Your task to perform on an android device: make emails show in primary in the gmail app Image 0: 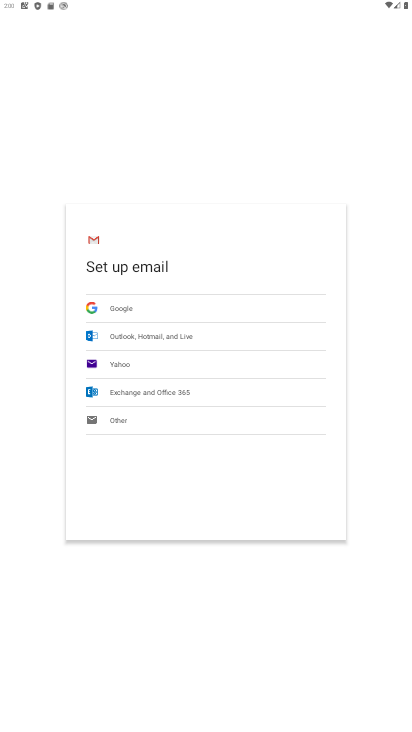
Step 0: press home button
Your task to perform on an android device: make emails show in primary in the gmail app Image 1: 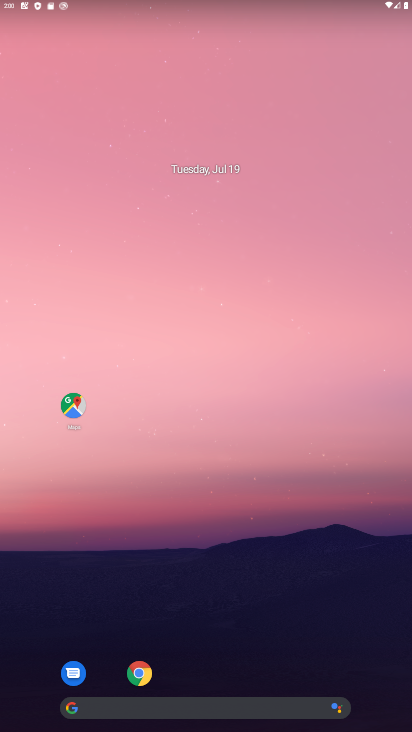
Step 1: drag from (218, 669) to (187, 76)
Your task to perform on an android device: make emails show in primary in the gmail app Image 2: 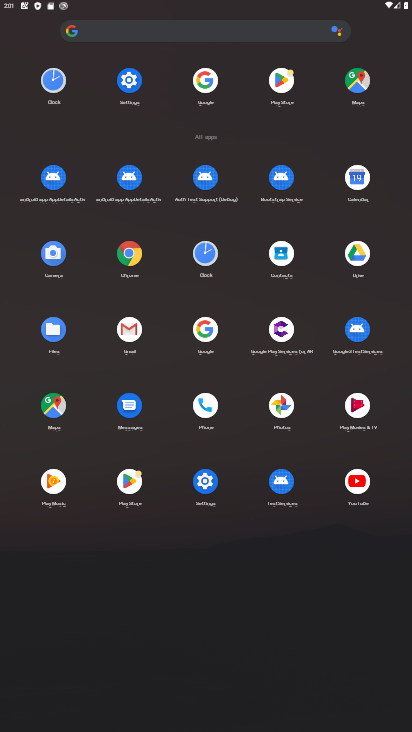
Step 2: click (128, 324)
Your task to perform on an android device: make emails show in primary in the gmail app Image 3: 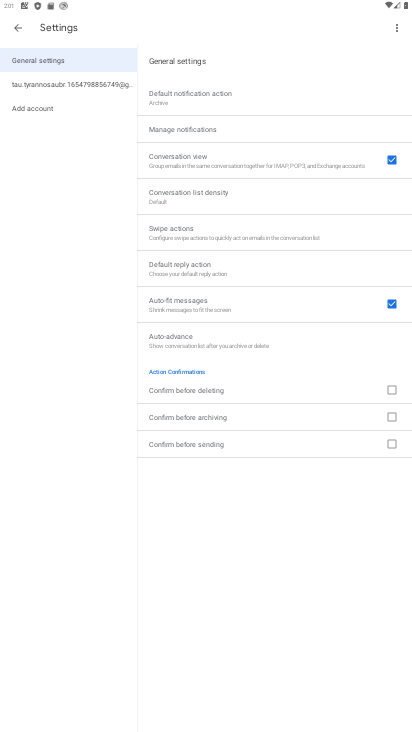
Step 3: click (78, 82)
Your task to perform on an android device: make emails show in primary in the gmail app Image 4: 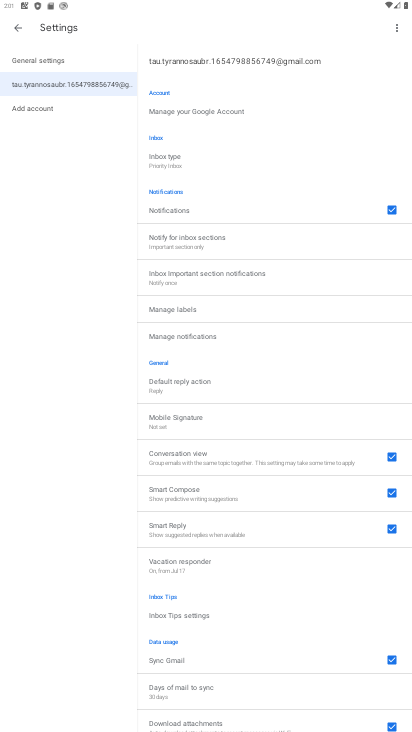
Step 4: click (166, 164)
Your task to perform on an android device: make emails show in primary in the gmail app Image 5: 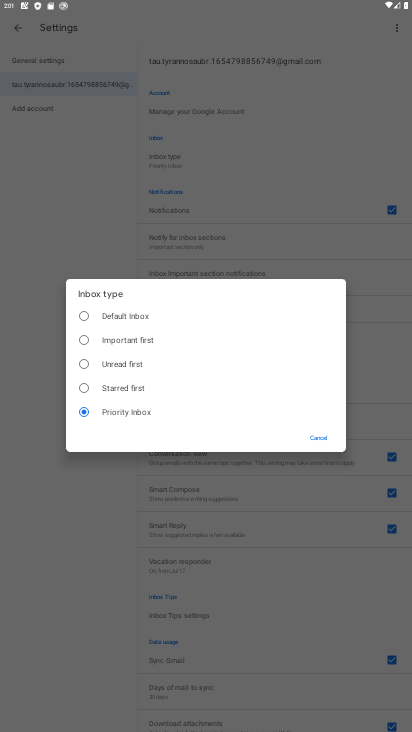
Step 5: click (80, 314)
Your task to perform on an android device: make emails show in primary in the gmail app Image 6: 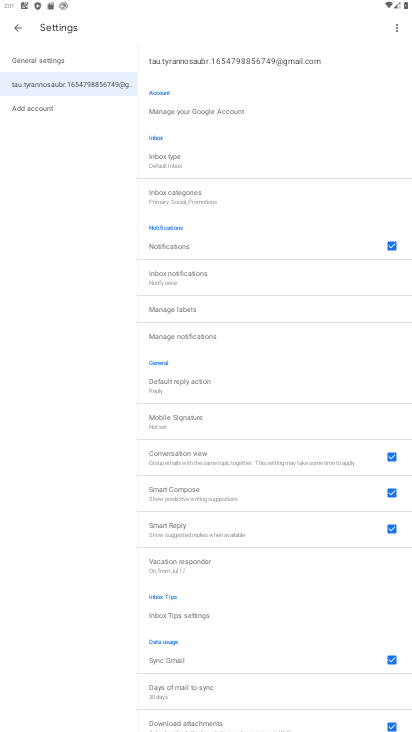
Step 6: click (187, 198)
Your task to perform on an android device: make emails show in primary in the gmail app Image 7: 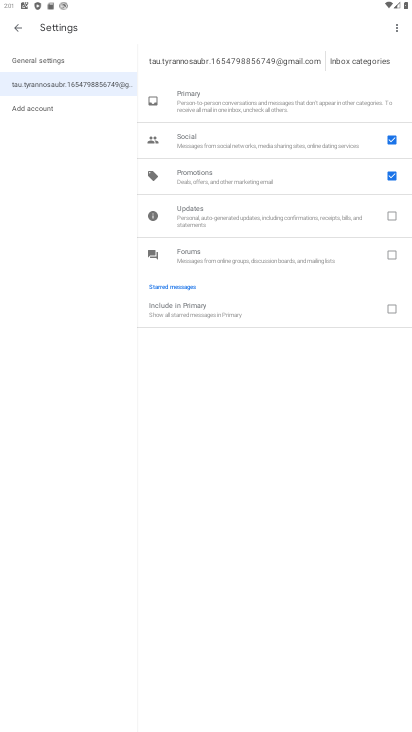
Step 7: click (395, 178)
Your task to perform on an android device: make emails show in primary in the gmail app Image 8: 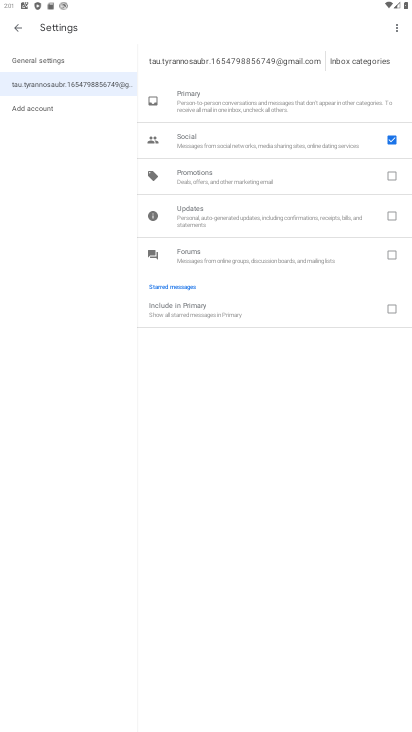
Step 8: click (396, 135)
Your task to perform on an android device: make emails show in primary in the gmail app Image 9: 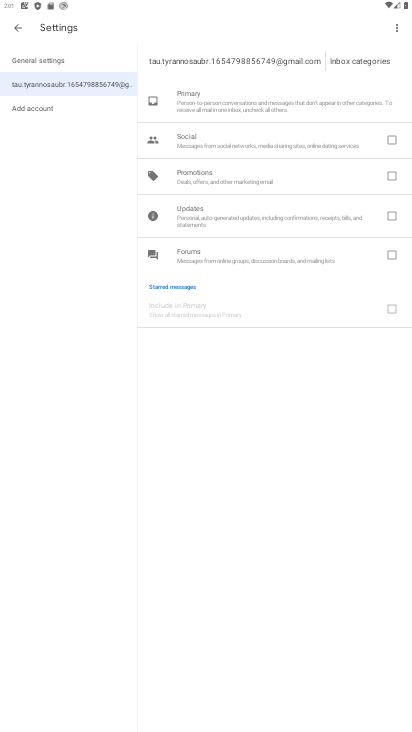
Step 9: task complete